Your task to perform on an android device: Go to Google Image 0: 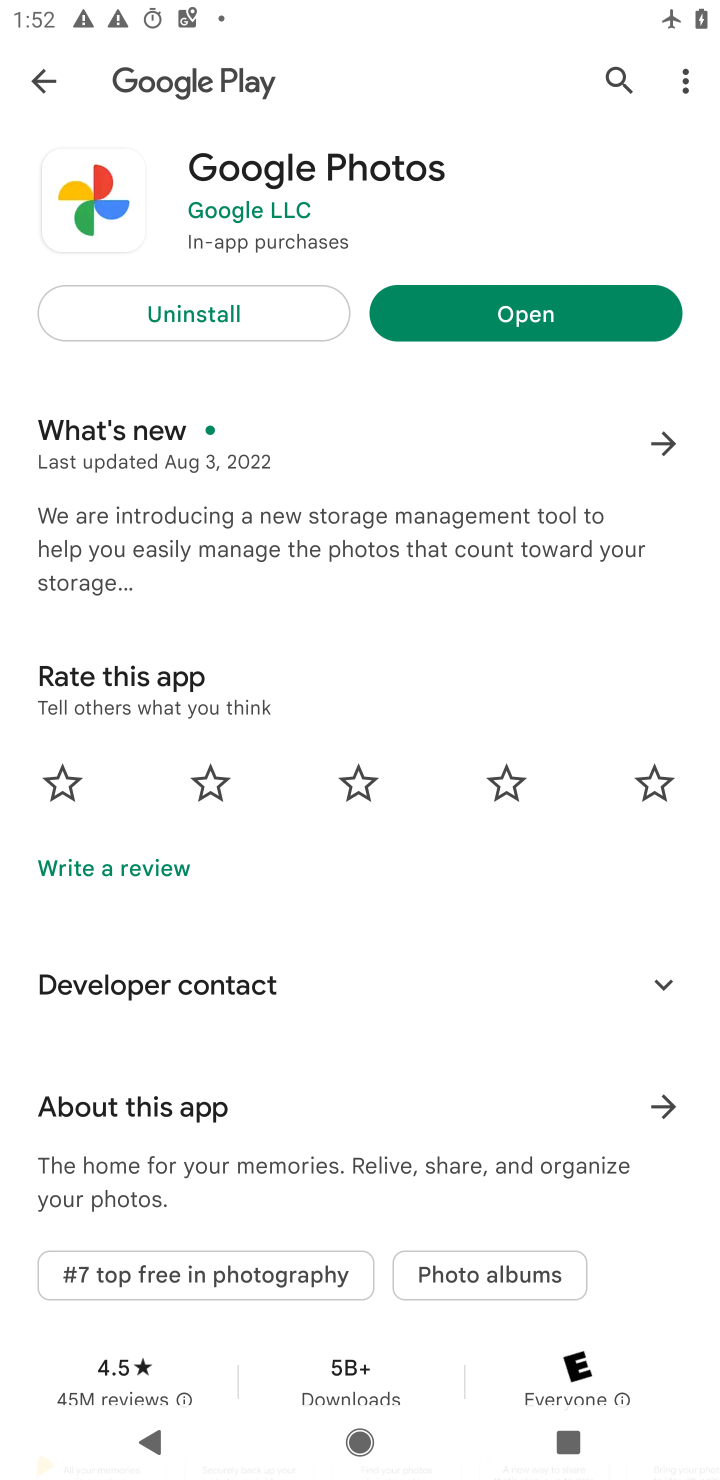
Step 0: press home button
Your task to perform on an android device: Go to Google Image 1: 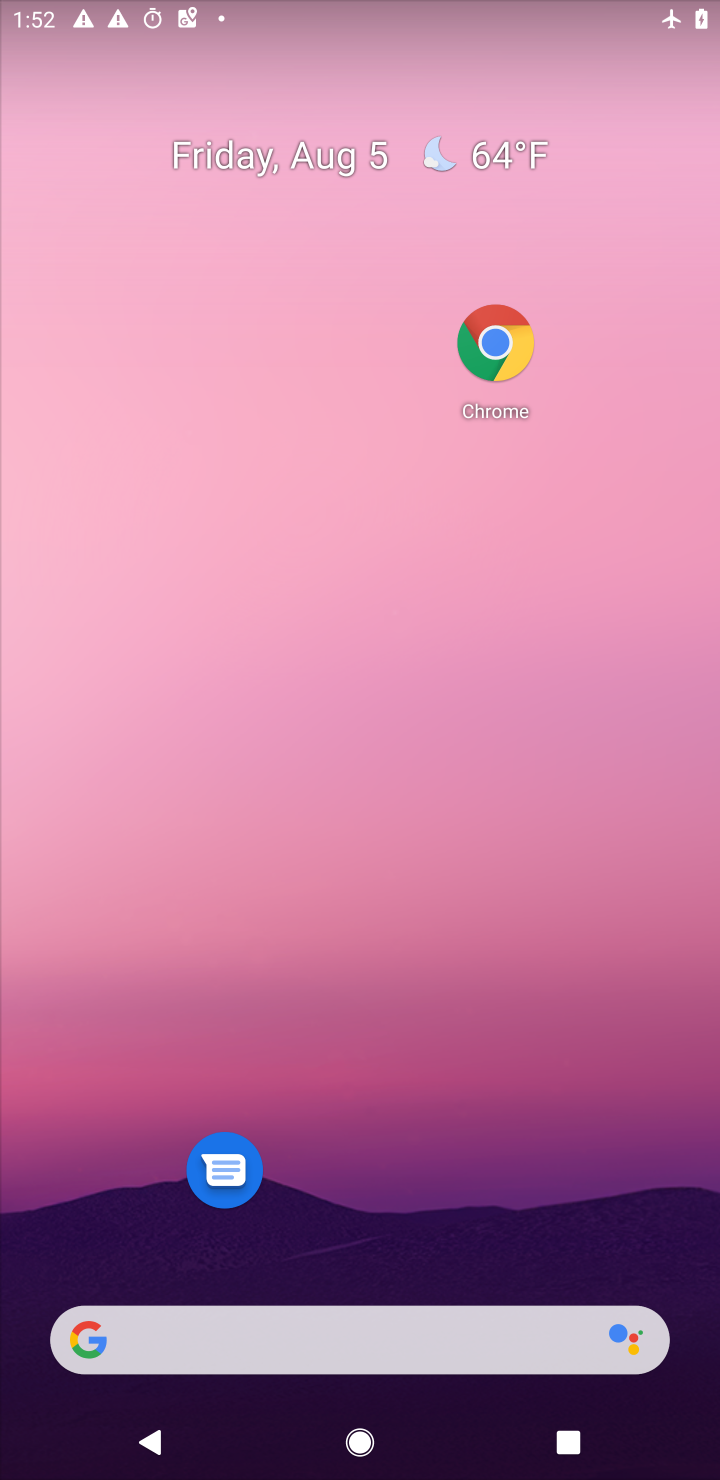
Step 1: drag from (376, 578) to (364, 276)
Your task to perform on an android device: Go to Google Image 2: 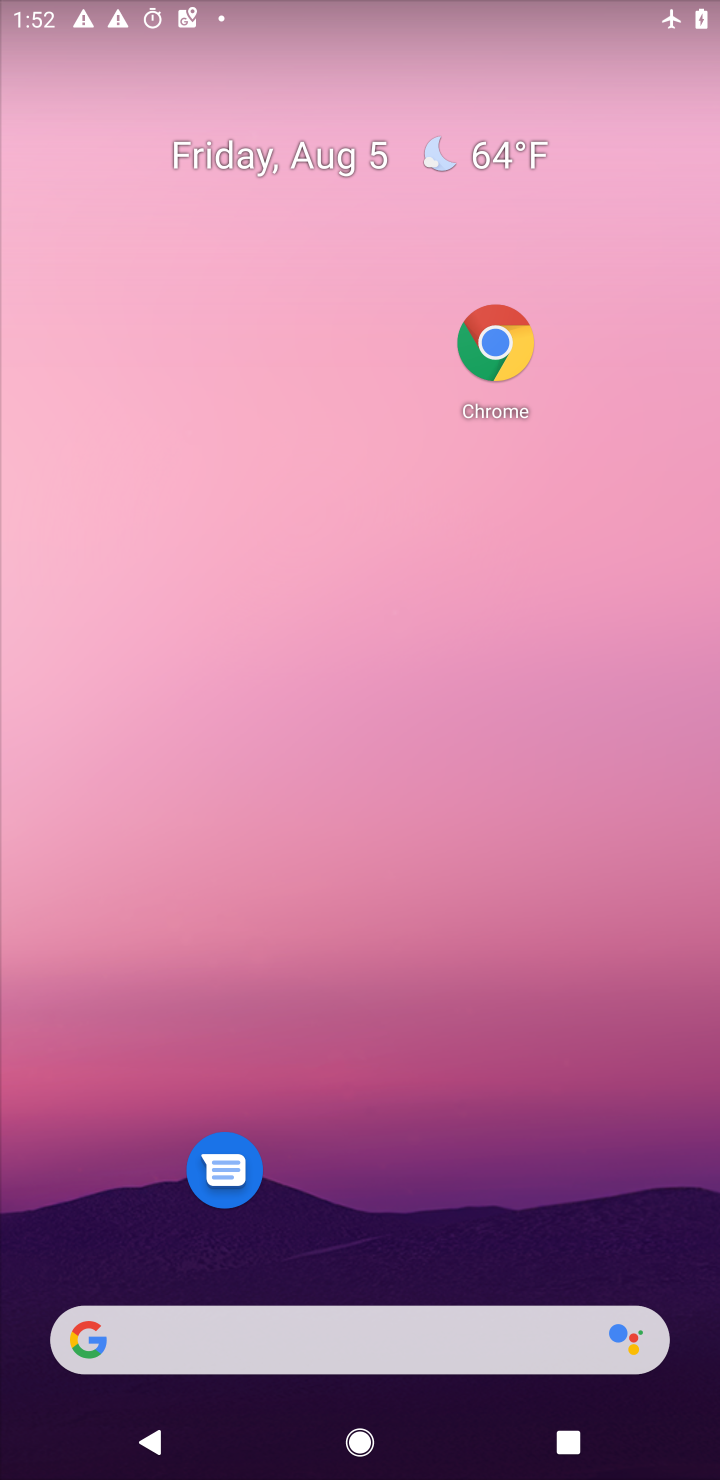
Step 2: drag from (338, 829) to (388, 161)
Your task to perform on an android device: Go to Google Image 3: 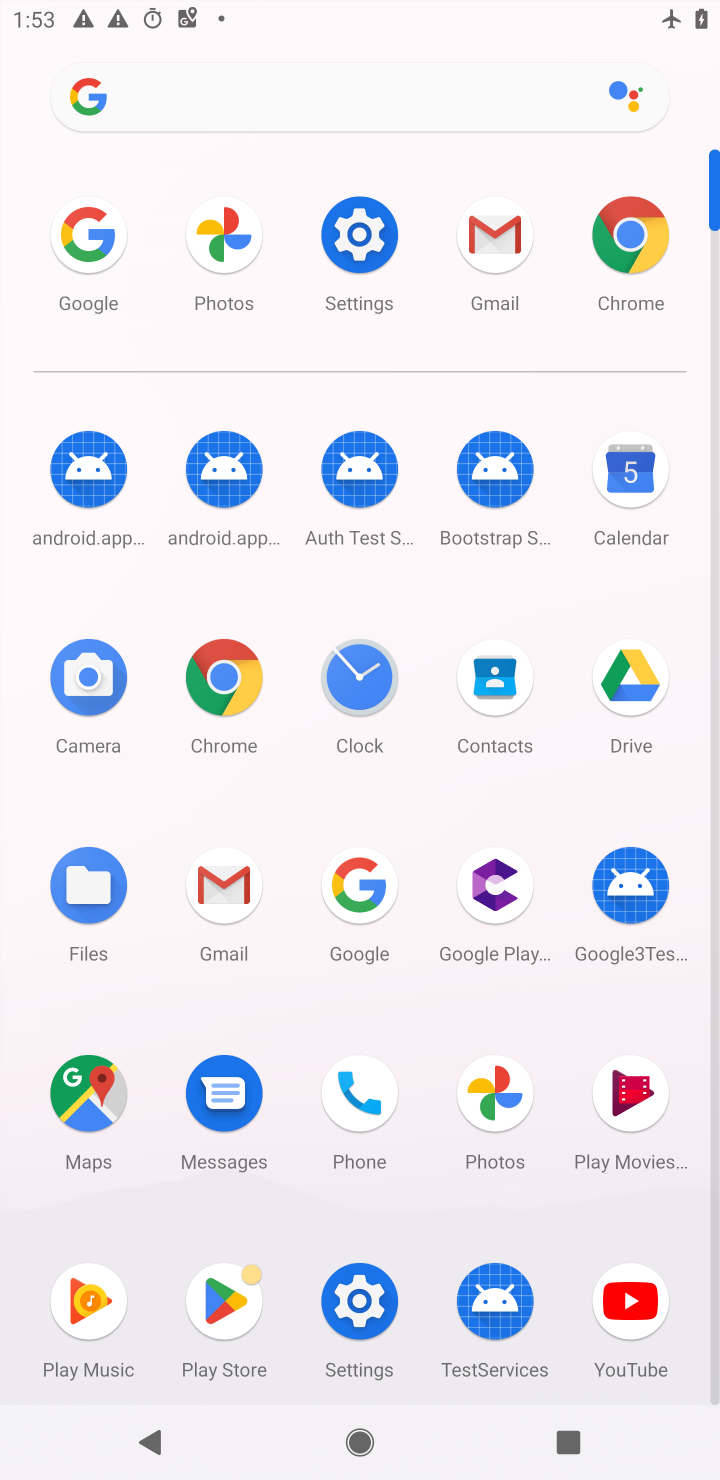
Step 3: click (362, 894)
Your task to perform on an android device: Go to Google Image 4: 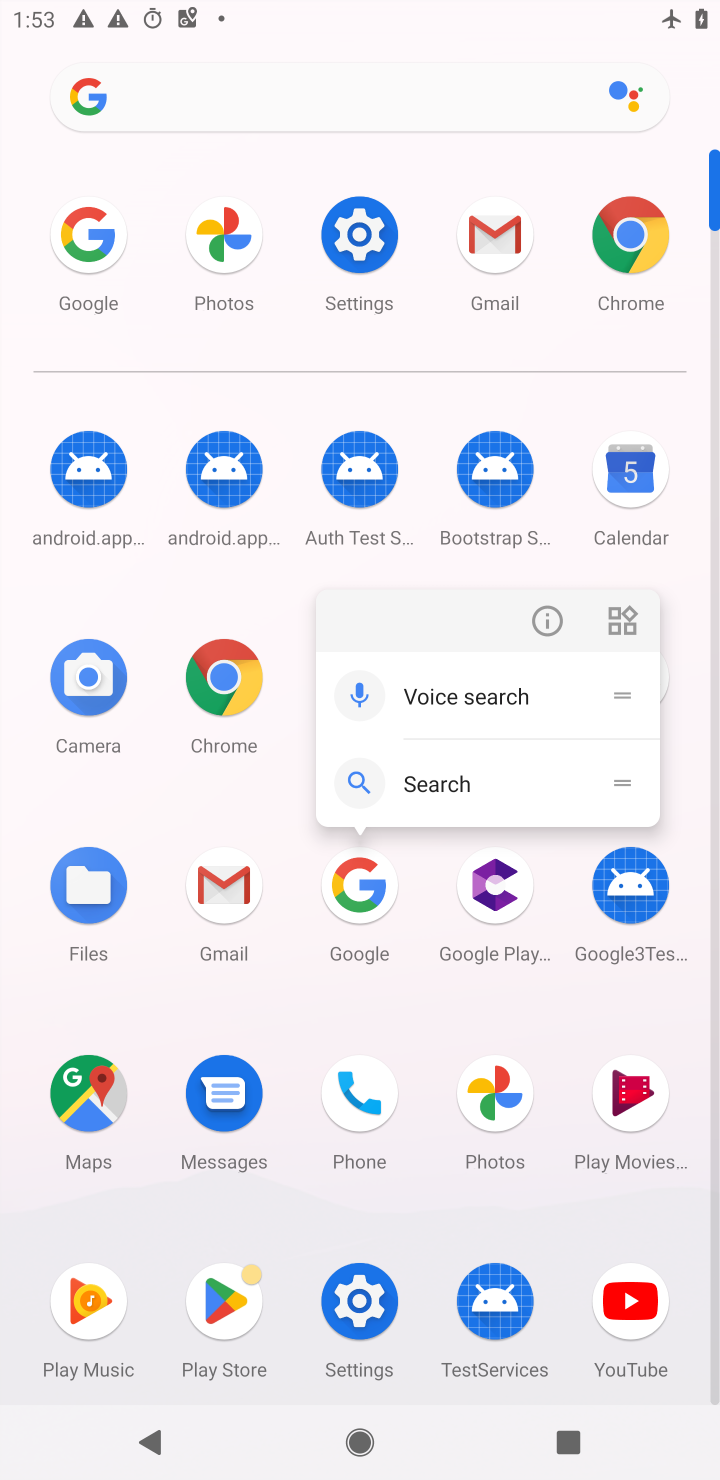
Step 4: click (361, 894)
Your task to perform on an android device: Go to Google Image 5: 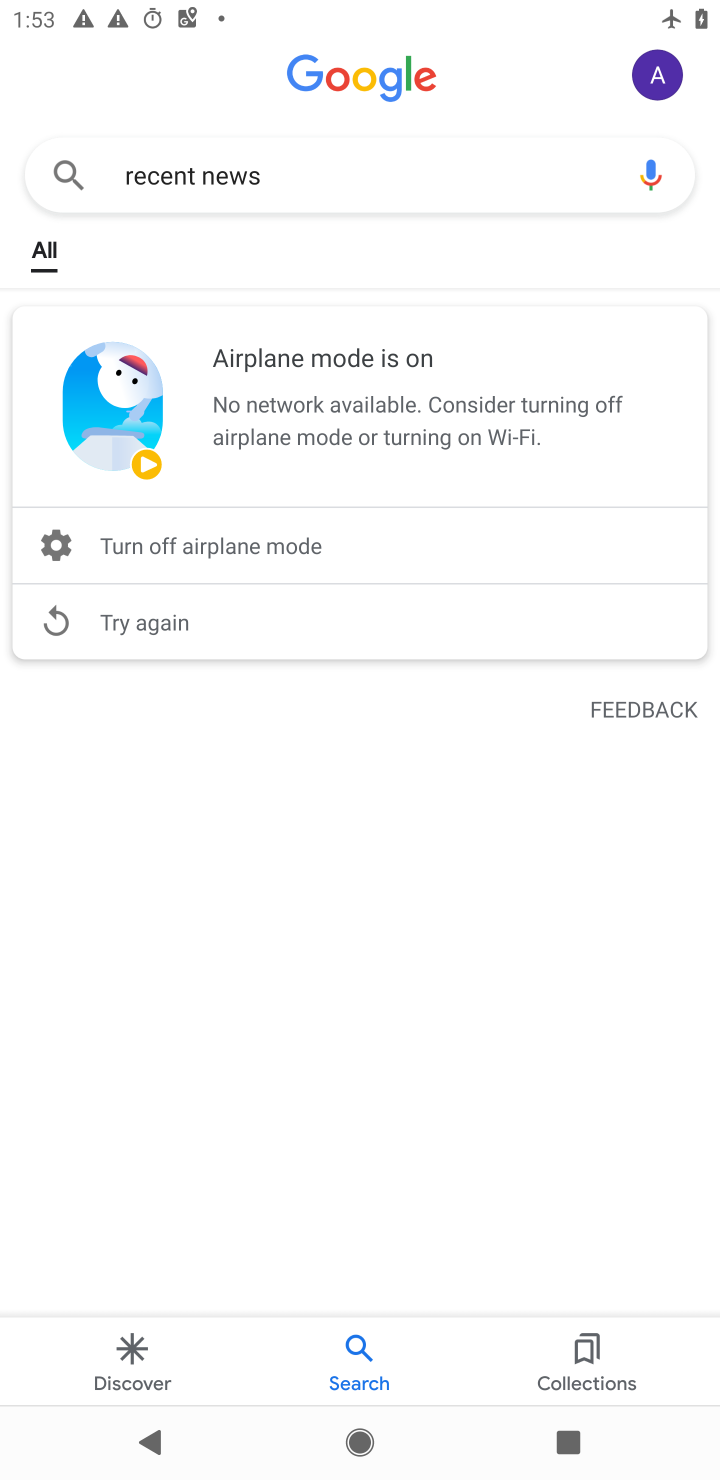
Step 5: click (129, 1355)
Your task to perform on an android device: Go to Google Image 6: 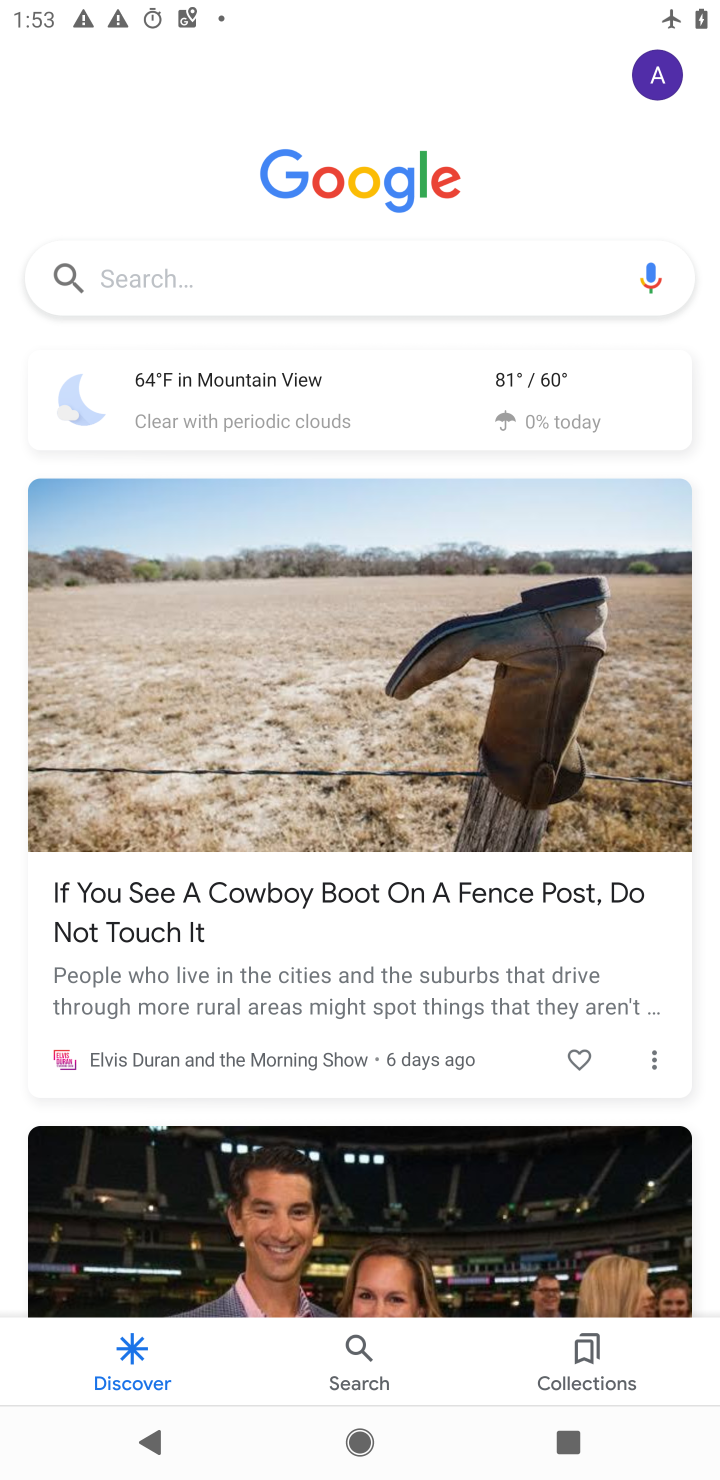
Step 6: task complete